Your task to perform on an android device: create a new album in the google photos Image 0: 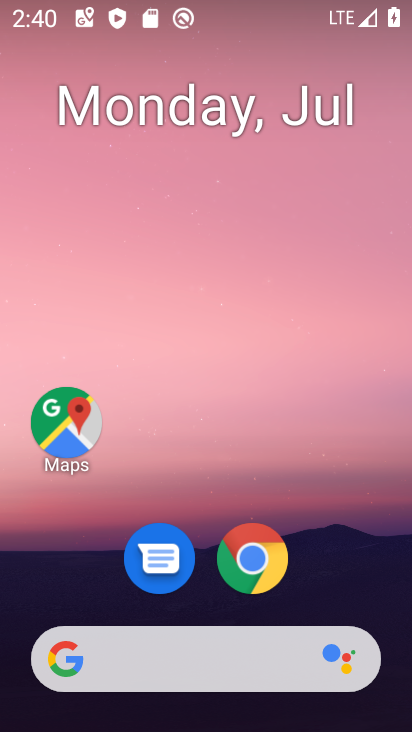
Step 0: drag from (362, 579) to (369, 127)
Your task to perform on an android device: create a new album in the google photos Image 1: 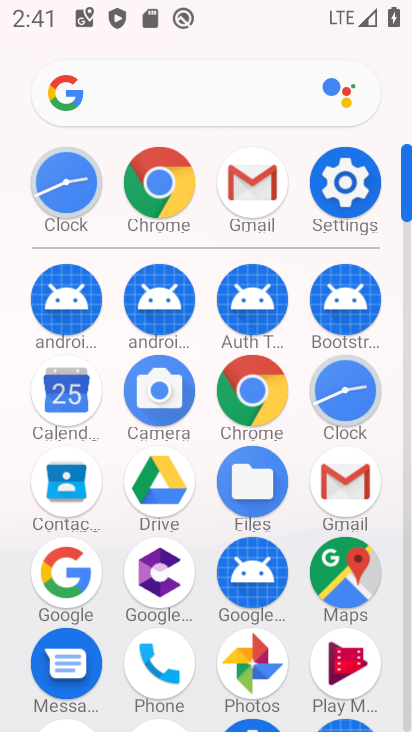
Step 1: click (261, 656)
Your task to perform on an android device: create a new album in the google photos Image 2: 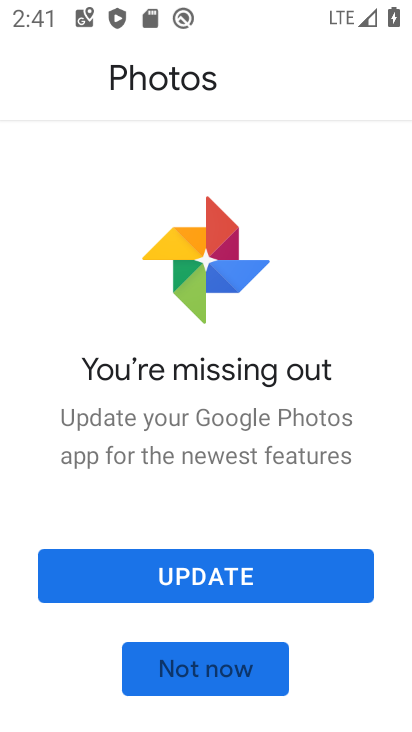
Step 2: click (246, 570)
Your task to perform on an android device: create a new album in the google photos Image 3: 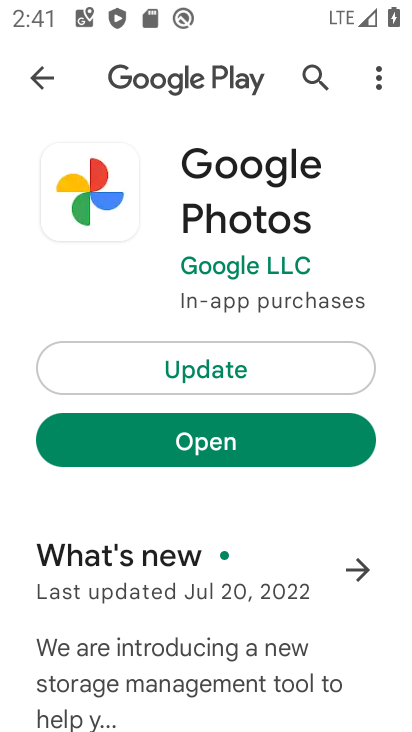
Step 3: click (251, 361)
Your task to perform on an android device: create a new album in the google photos Image 4: 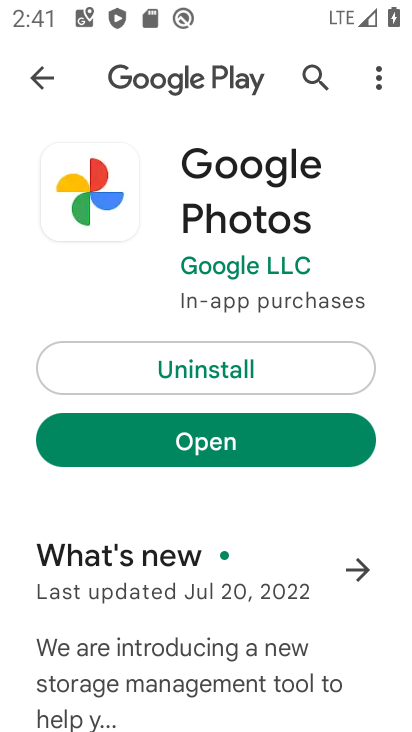
Step 4: click (284, 448)
Your task to perform on an android device: create a new album in the google photos Image 5: 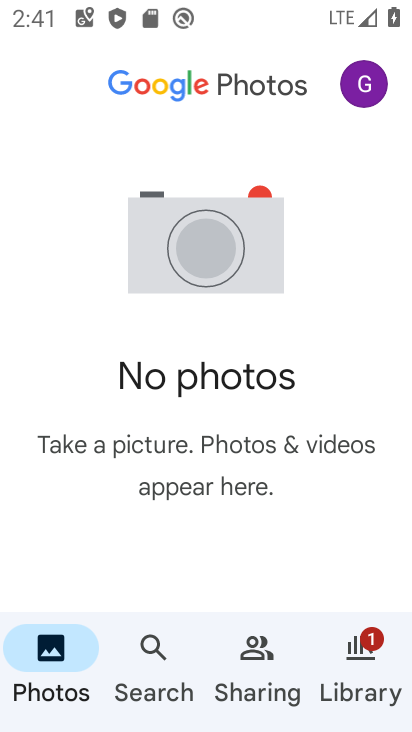
Step 5: click (368, 660)
Your task to perform on an android device: create a new album in the google photos Image 6: 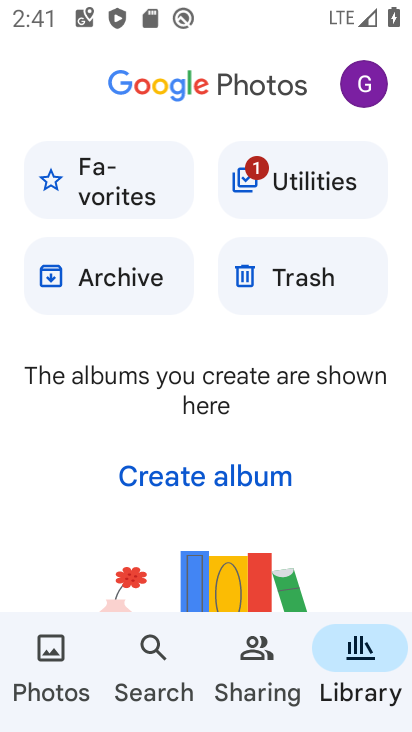
Step 6: click (248, 465)
Your task to perform on an android device: create a new album in the google photos Image 7: 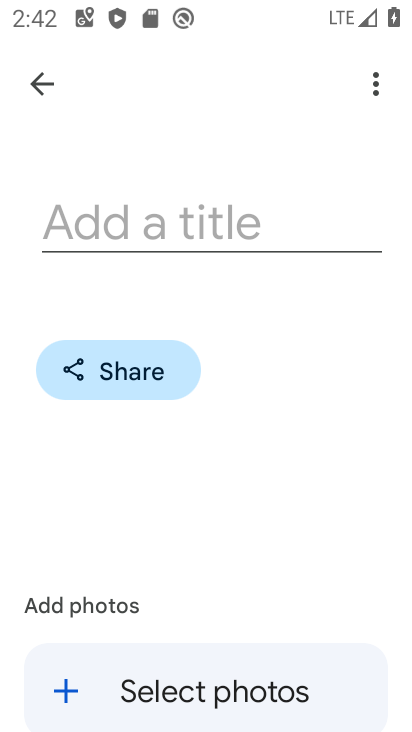
Step 7: click (299, 237)
Your task to perform on an android device: create a new album in the google photos Image 8: 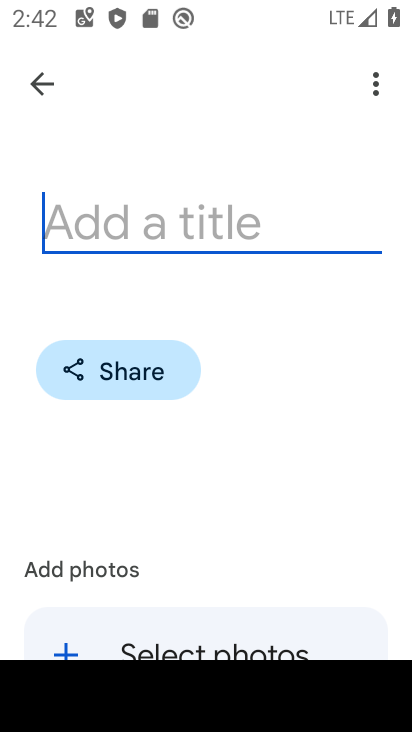
Step 8: type "fav"
Your task to perform on an android device: create a new album in the google photos Image 9: 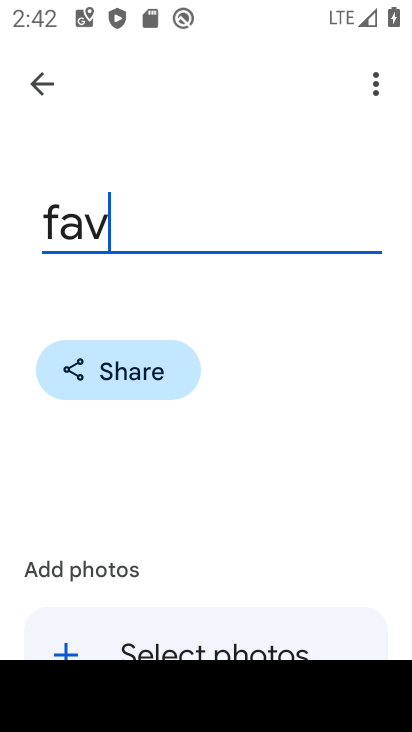
Step 9: click (187, 627)
Your task to perform on an android device: create a new album in the google photos Image 10: 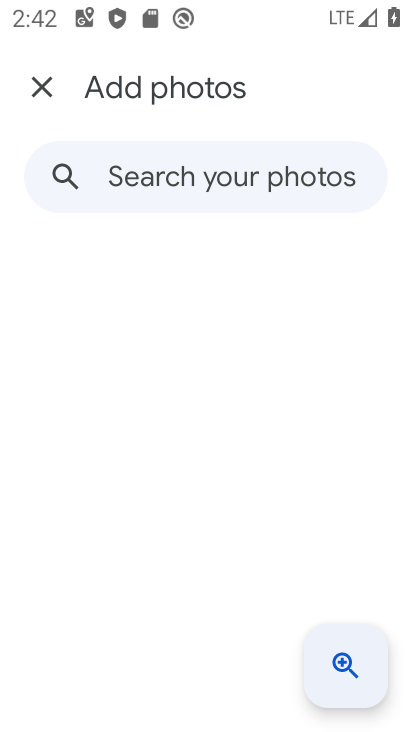
Step 10: task complete